Your task to perform on an android device: Open internet settings Image 0: 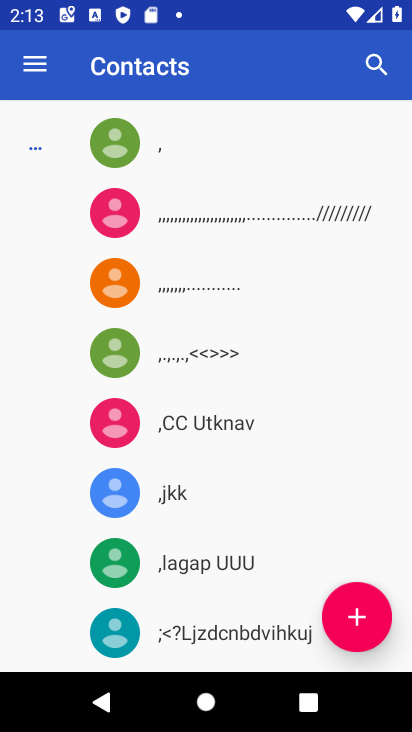
Step 0: press home button
Your task to perform on an android device: Open internet settings Image 1: 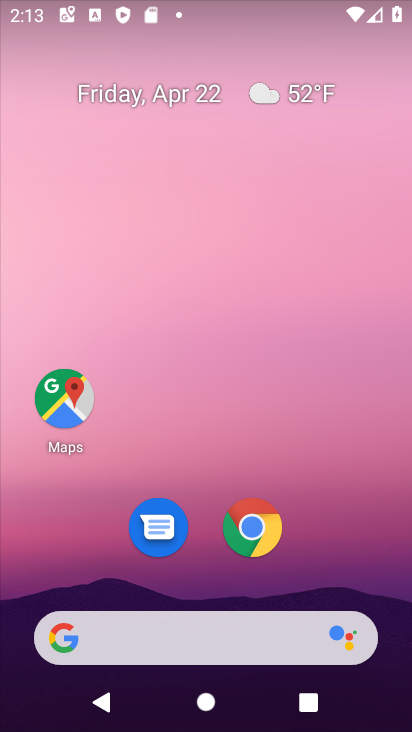
Step 1: drag from (385, 516) to (268, 65)
Your task to perform on an android device: Open internet settings Image 2: 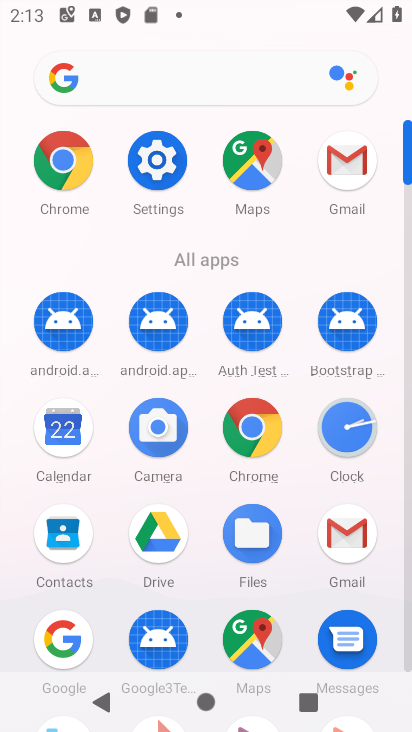
Step 2: click (167, 164)
Your task to perform on an android device: Open internet settings Image 3: 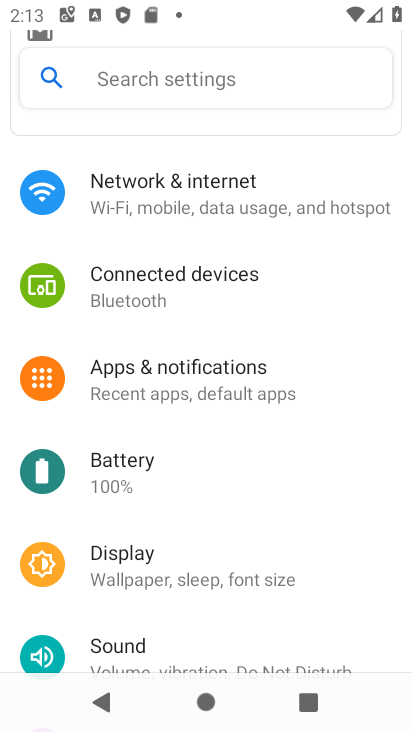
Step 3: click (147, 184)
Your task to perform on an android device: Open internet settings Image 4: 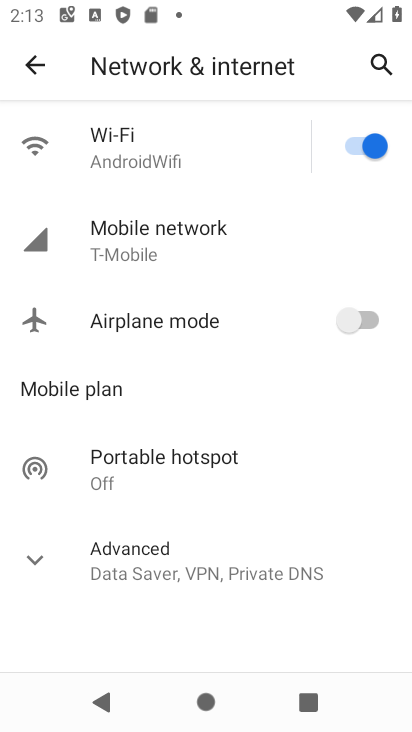
Step 4: click (150, 224)
Your task to perform on an android device: Open internet settings Image 5: 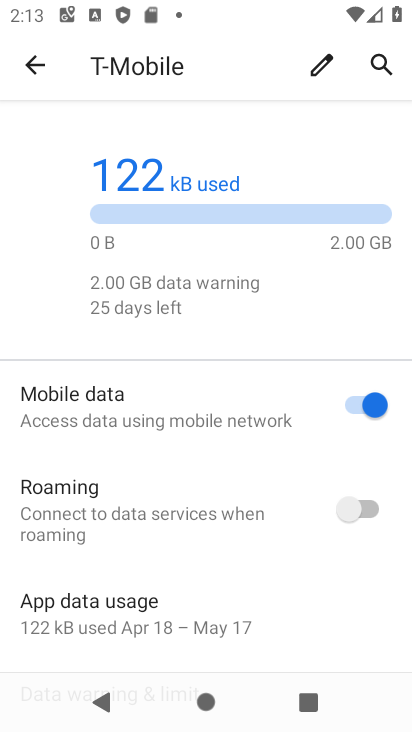
Step 5: task complete